Your task to perform on an android device: Open Maps and search for coffee Image 0: 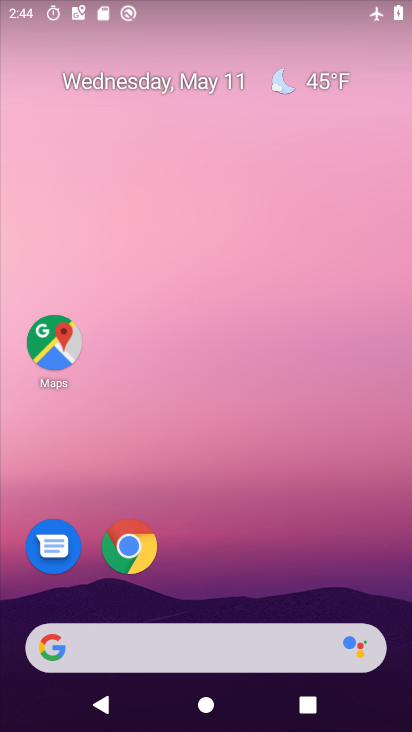
Step 0: drag from (219, 593) to (278, 7)
Your task to perform on an android device: Open Maps and search for coffee Image 1: 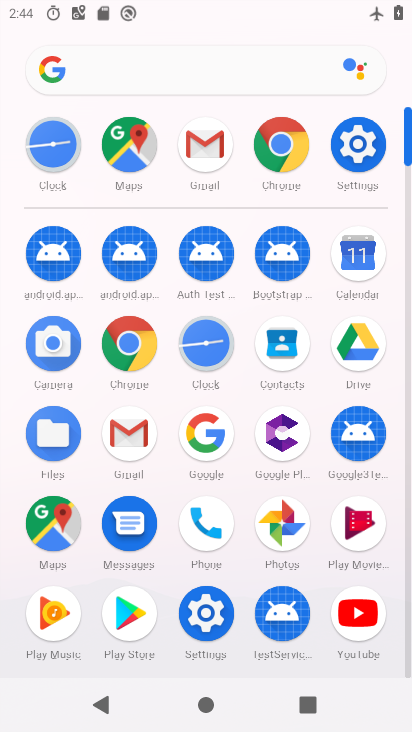
Step 1: click (43, 527)
Your task to perform on an android device: Open Maps and search for coffee Image 2: 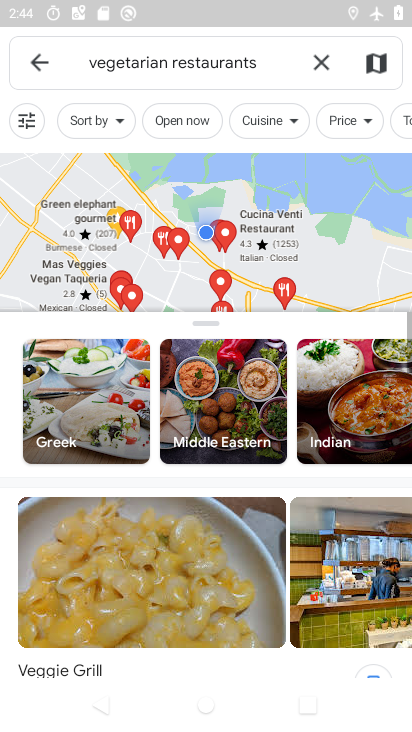
Step 2: click (318, 68)
Your task to perform on an android device: Open Maps and search for coffee Image 3: 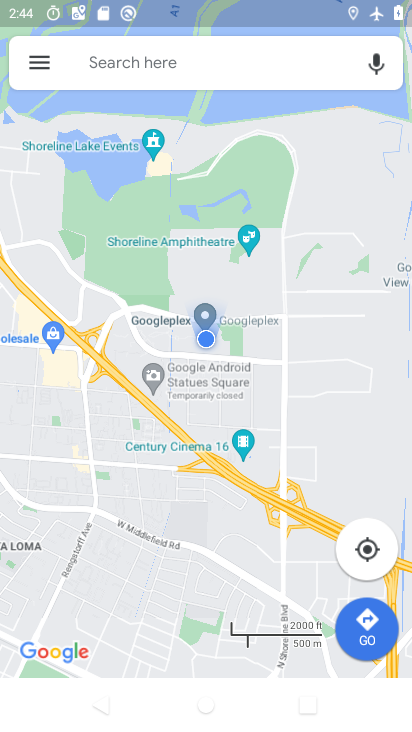
Step 3: click (221, 66)
Your task to perform on an android device: Open Maps and search for coffee Image 4: 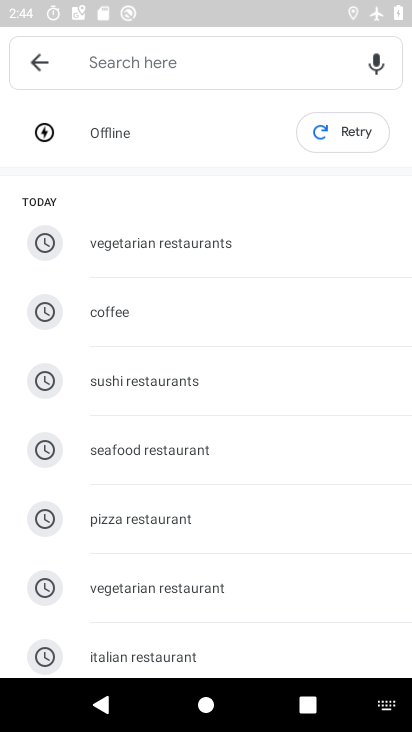
Step 4: type "coffee"
Your task to perform on an android device: Open Maps and search for coffee Image 5: 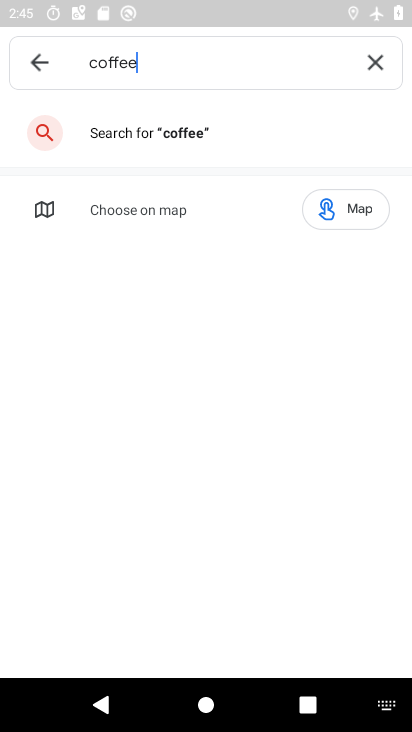
Step 5: task complete